Your task to perform on an android device: add a contact Image 0: 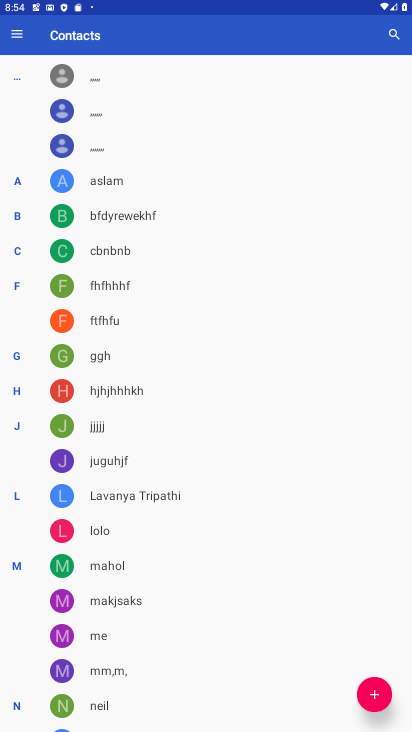
Step 0: click (368, 692)
Your task to perform on an android device: add a contact Image 1: 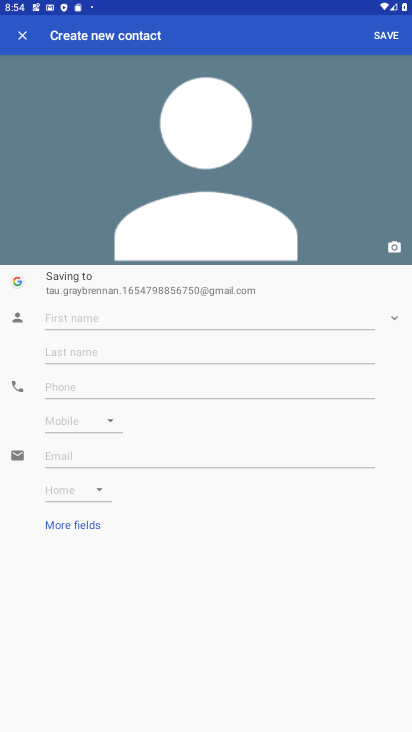
Step 1: click (74, 324)
Your task to perform on an android device: add a contact Image 2: 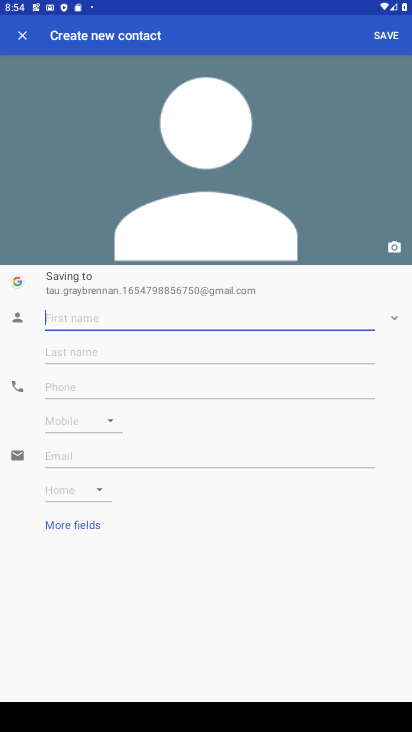
Step 2: type "kittu"
Your task to perform on an android device: add a contact Image 3: 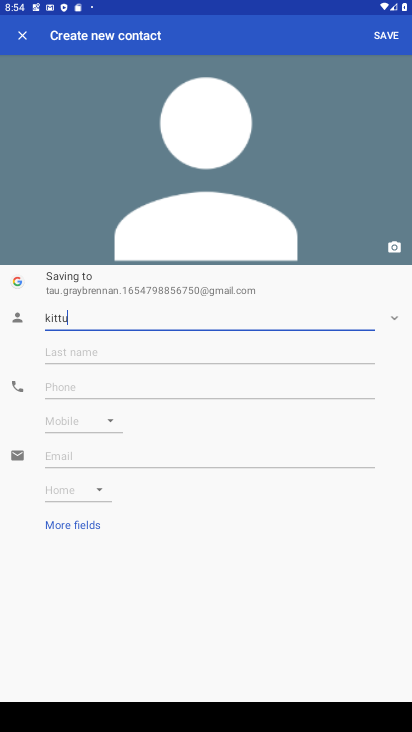
Step 3: click (88, 360)
Your task to perform on an android device: add a contact Image 4: 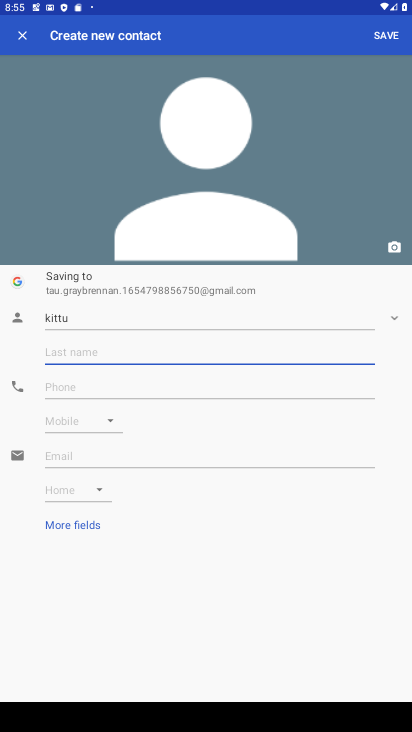
Step 4: click (83, 418)
Your task to perform on an android device: add a contact Image 5: 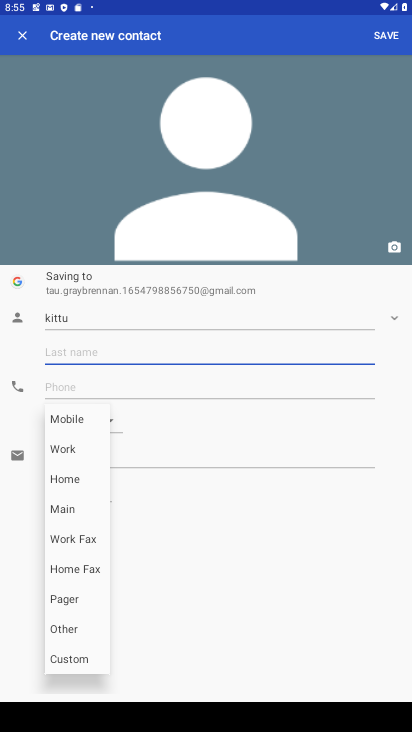
Step 5: click (118, 391)
Your task to perform on an android device: add a contact Image 6: 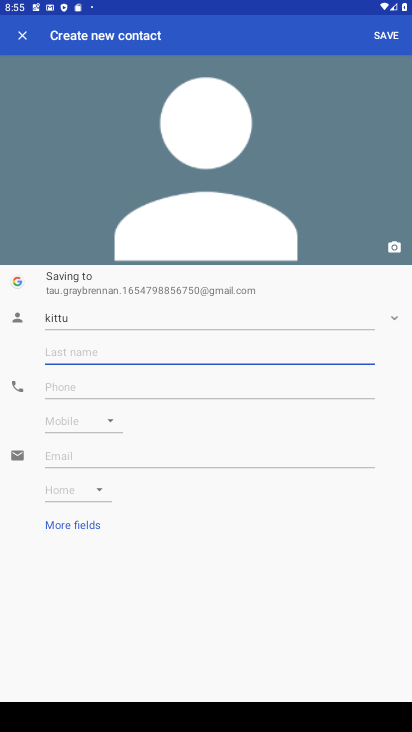
Step 6: click (68, 386)
Your task to perform on an android device: add a contact Image 7: 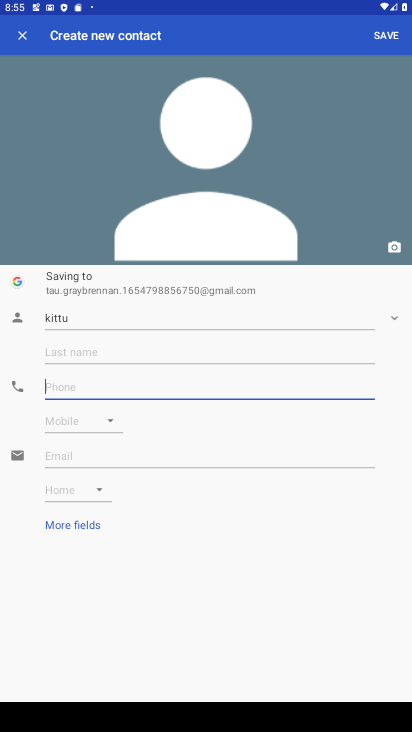
Step 7: type "675848473"
Your task to perform on an android device: add a contact Image 8: 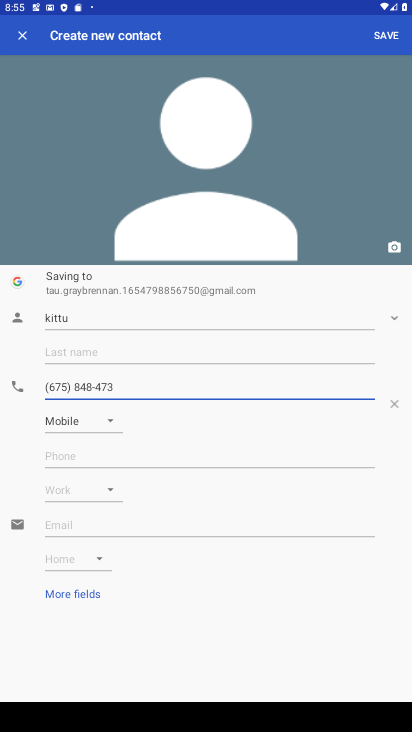
Step 8: click (382, 33)
Your task to perform on an android device: add a contact Image 9: 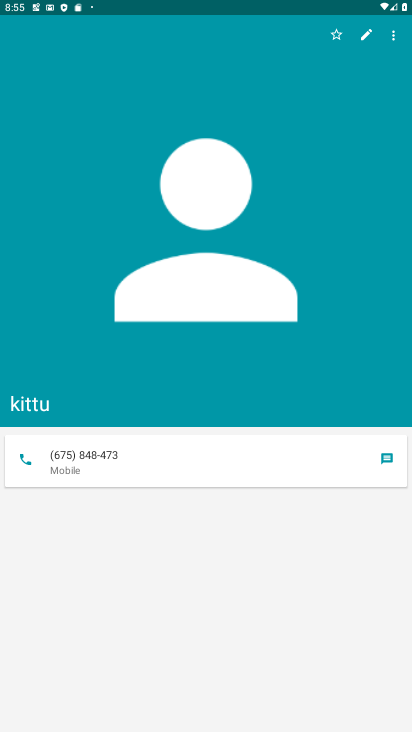
Step 9: task complete